Your task to perform on an android device: toggle translation in the chrome app Image 0: 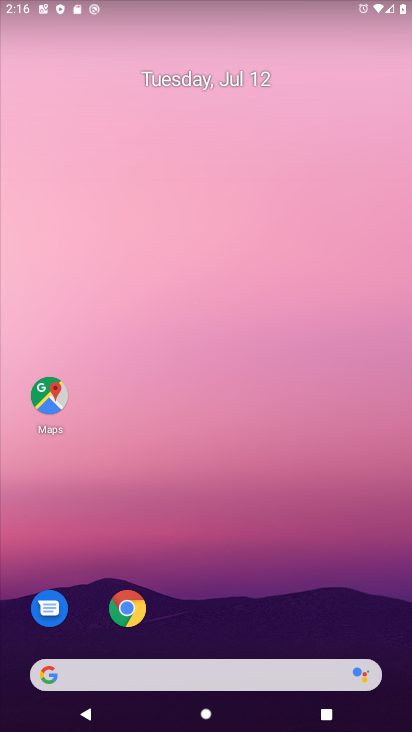
Step 0: drag from (211, 602) to (188, 170)
Your task to perform on an android device: toggle translation in the chrome app Image 1: 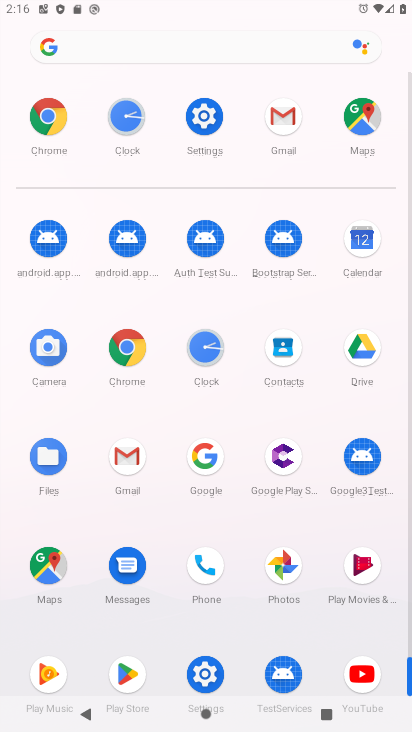
Step 1: click (131, 351)
Your task to perform on an android device: toggle translation in the chrome app Image 2: 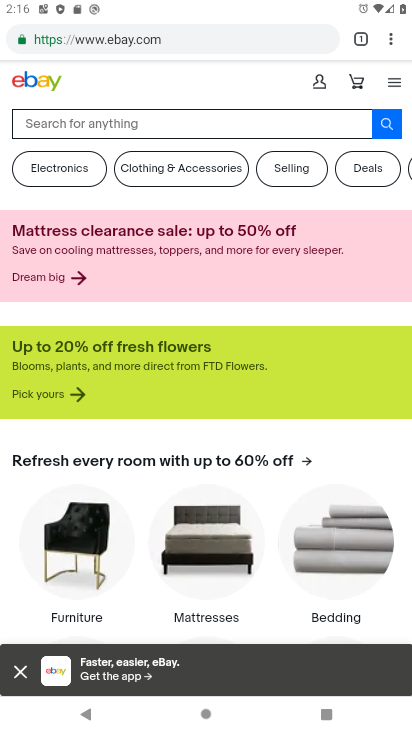
Step 2: drag from (394, 29) to (273, 511)
Your task to perform on an android device: toggle translation in the chrome app Image 3: 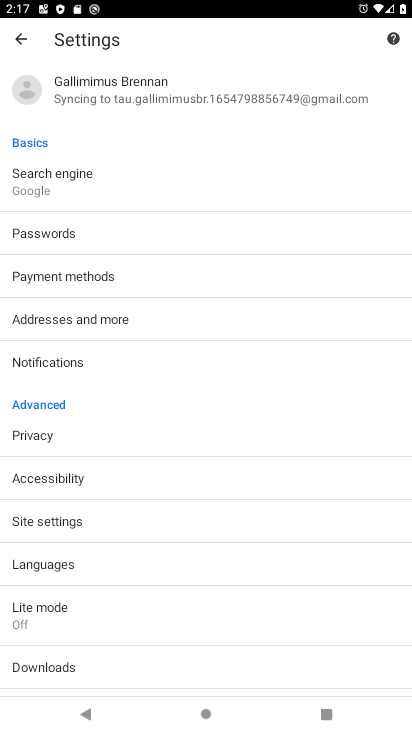
Step 3: click (88, 564)
Your task to perform on an android device: toggle translation in the chrome app Image 4: 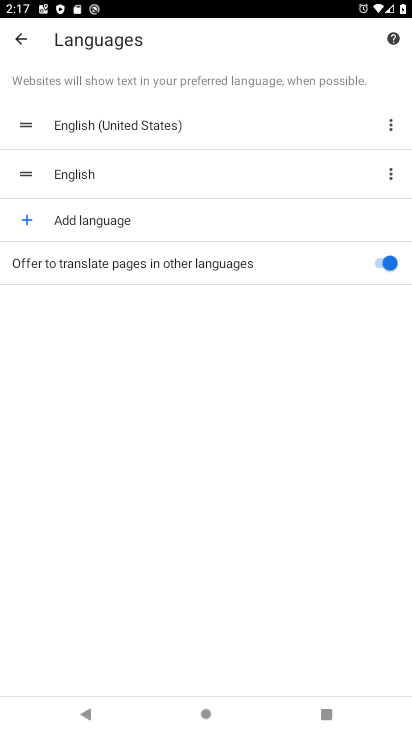
Step 4: click (392, 254)
Your task to perform on an android device: toggle translation in the chrome app Image 5: 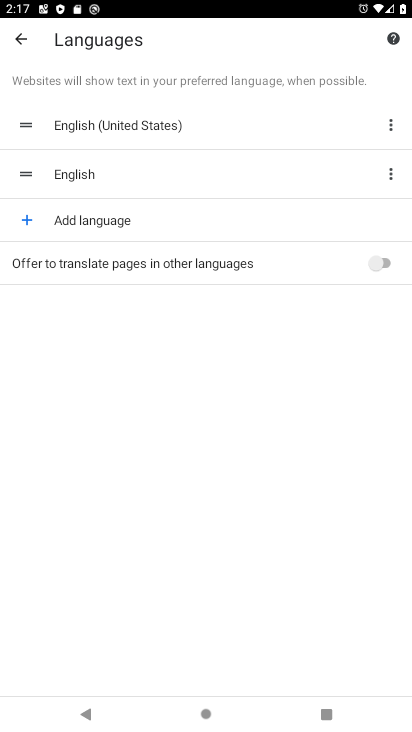
Step 5: task complete